Your task to perform on an android device: What is the news today? Image 0: 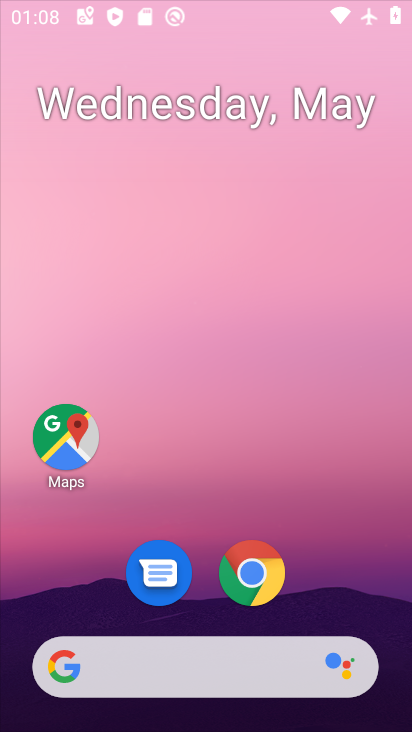
Step 0: drag from (321, 537) to (342, 315)
Your task to perform on an android device: What is the news today? Image 1: 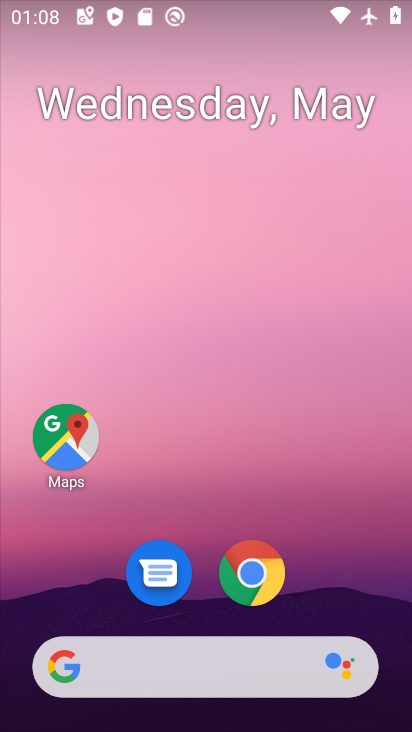
Step 1: click (246, 570)
Your task to perform on an android device: What is the news today? Image 2: 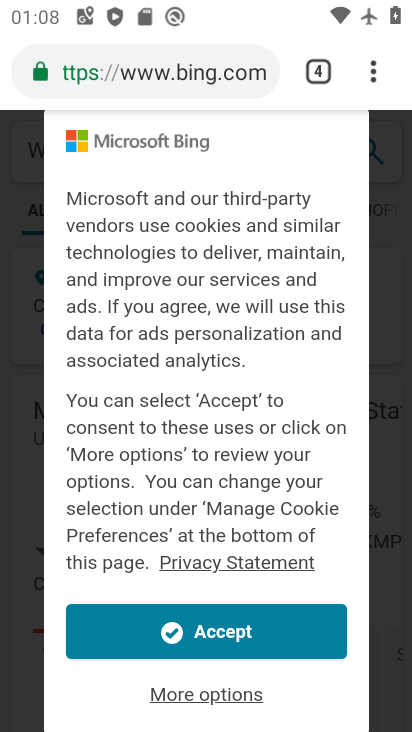
Step 2: click (388, 60)
Your task to perform on an android device: What is the news today? Image 3: 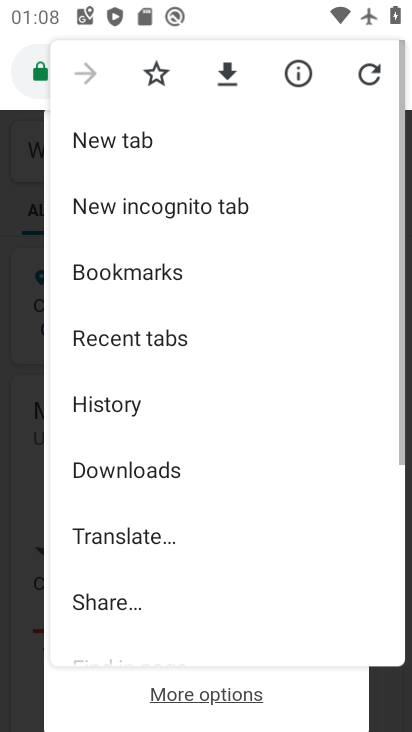
Step 3: click (188, 135)
Your task to perform on an android device: What is the news today? Image 4: 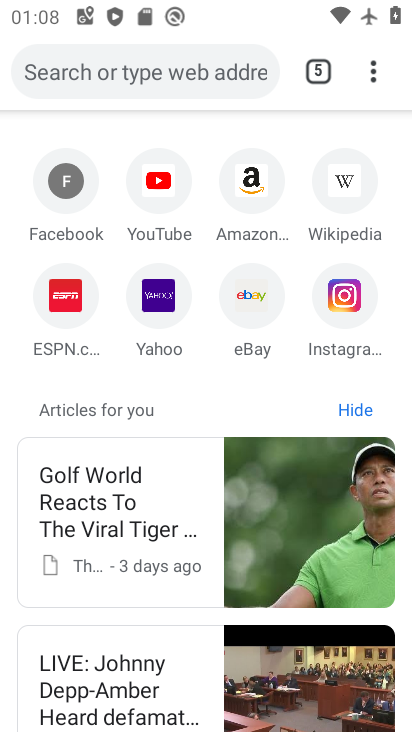
Step 4: click (165, 64)
Your task to perform on an android device: What is the news today? Image 5: 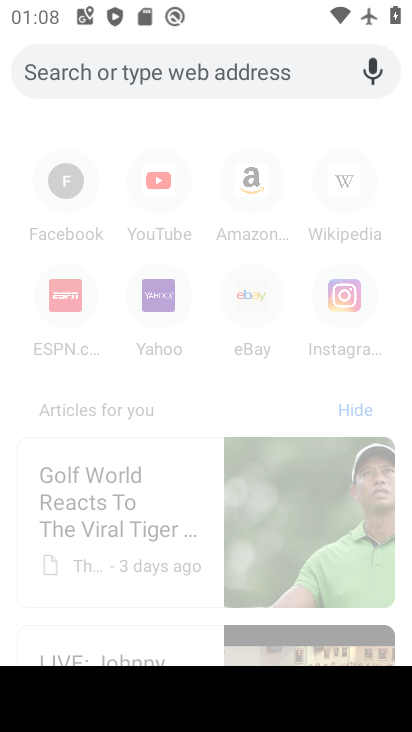
Step 5: type "What is the news today?"
Your task to perform on an android device: What is the news today? Image 6: 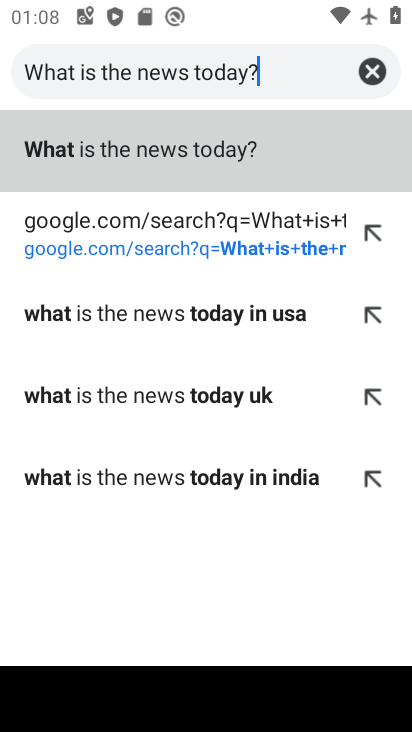
Step 6: click (192, 142)
Your task to perform on an android device: What is the news today? Image 7: 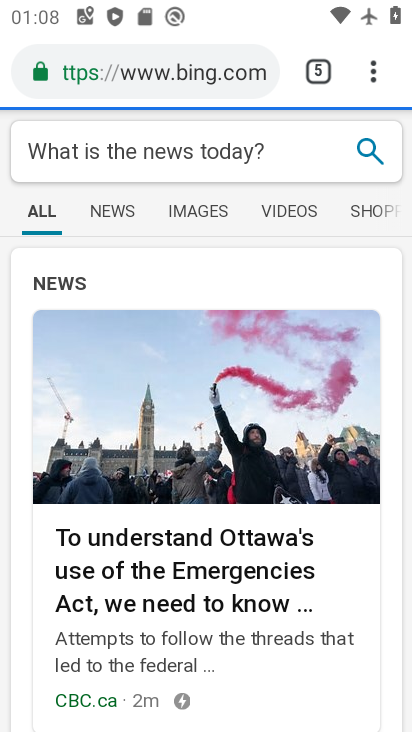
Step 7: task complete